Your task to perform on an android device: Go to accessibility settings Image 0: 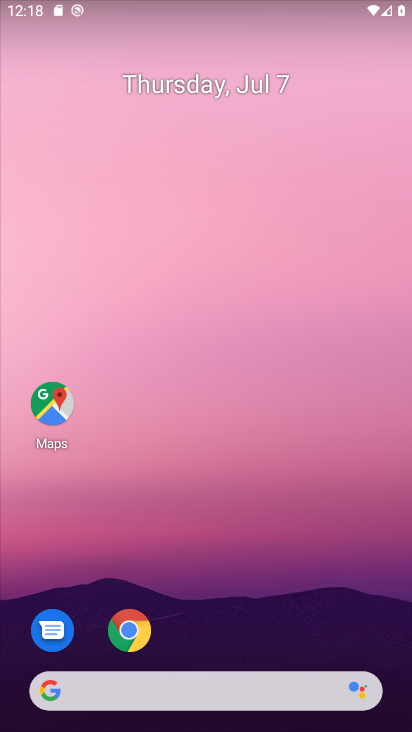
Step 0: drag from (227, 622) to (201, 221)
Your task to perform on an android device: Go to accessibility settings Image 1: 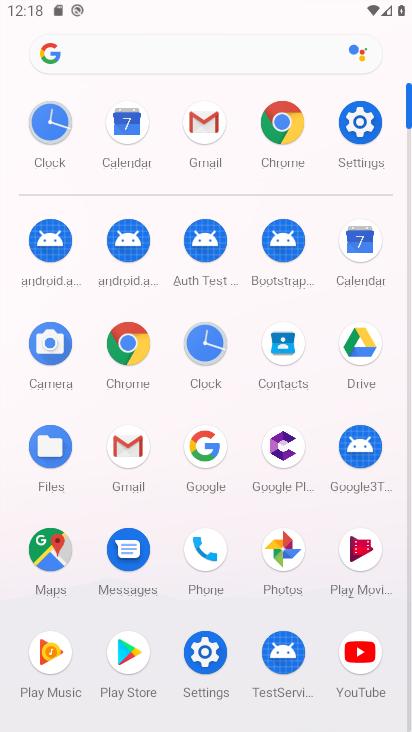
Step 1: click (344, 118)
Your task to perform on an android device: Go to accessibility settings Image 2: 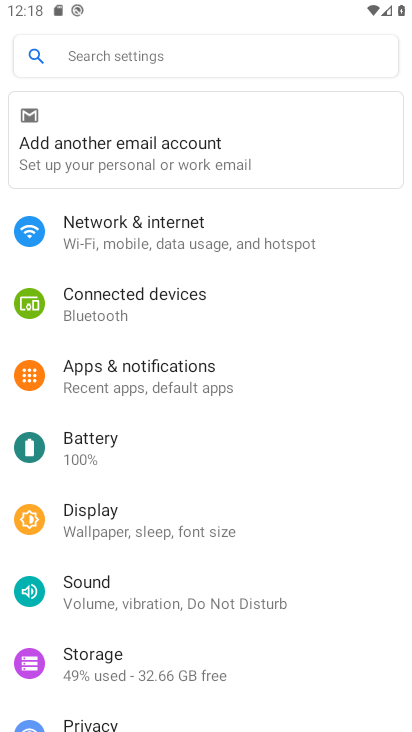
Step 2: drag from (167, 598) to (212, 183)
Your task to perform on an android device: Go to accessibility settings Image 3: 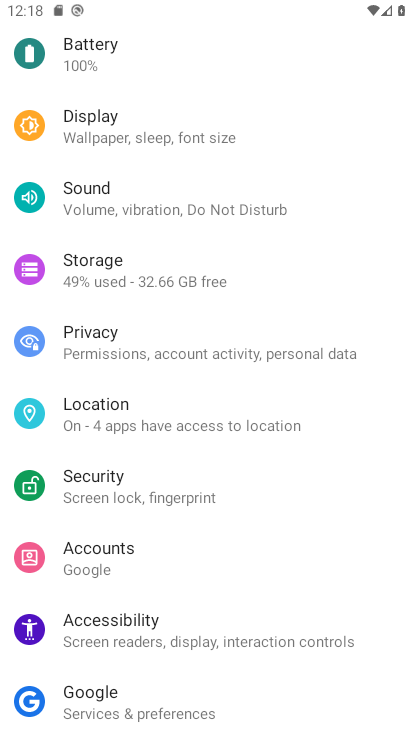
Step 3: click (155, 649)
Your task to perform on an android device: Go to accessibility settings Image 4: 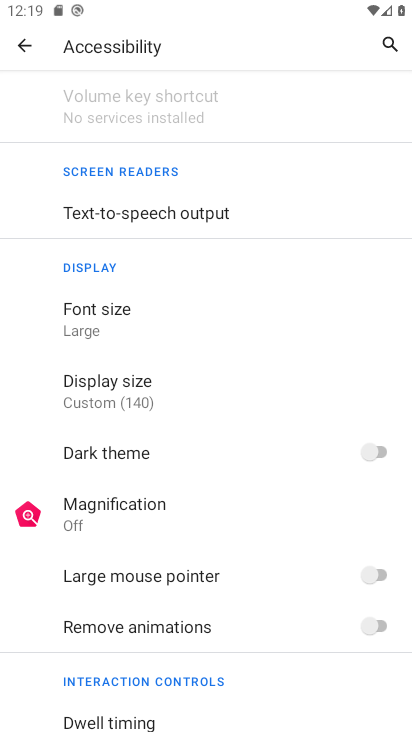
Step 4: task complete